Your task to perform on an android device: find snoozed emails in the gmail app Image 0: 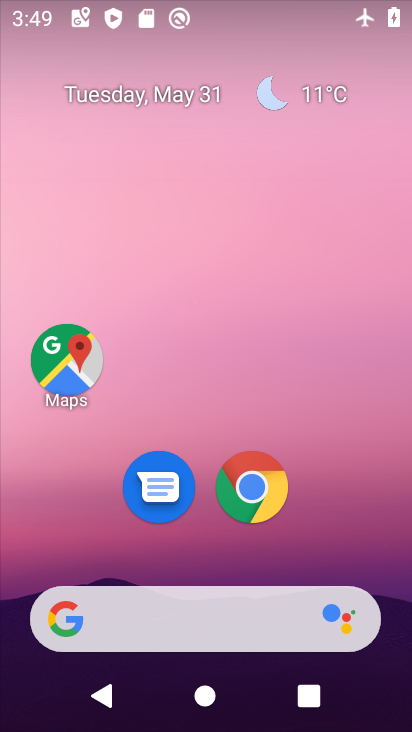
Step 0: drag from (361, 517) to (259, 187)
Your task to perform on an android device: find snoozed emails in the gmail app Image 1: 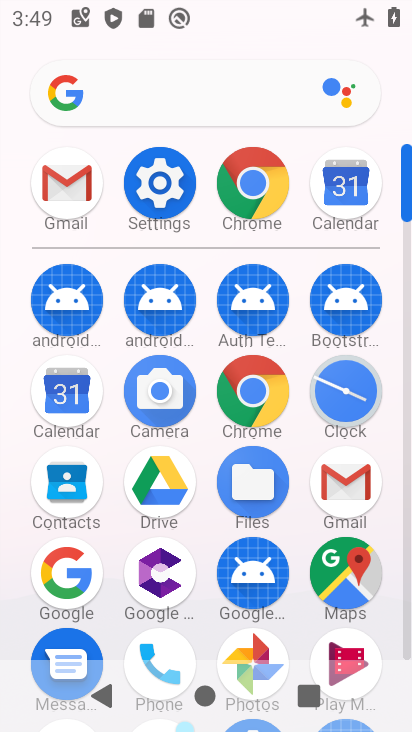
Step 1: click (66, 185)
Your task to perform on an android device: find snoozed emails in the gmail app Image 2: 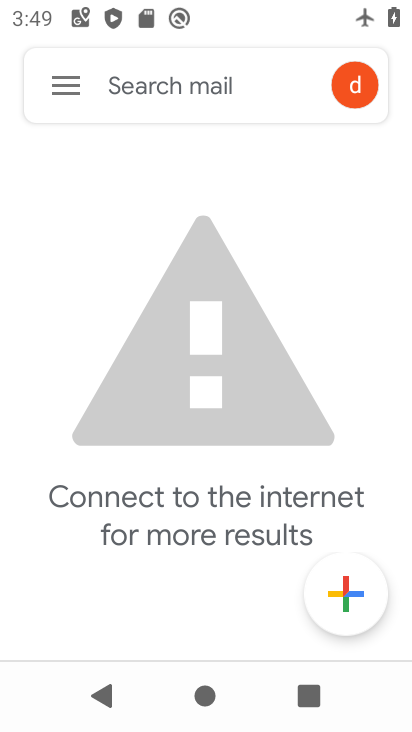
Step 2: click (72, 90)
Your task to perform on an android device: find snoozed emails in the gmail app Image 3: 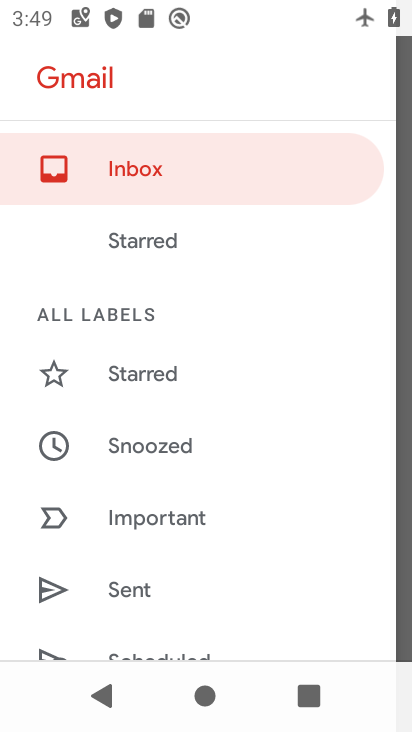
Step 3: click (174, 456)
Your task to perform on an android device: find snoozed emails in the gmail app Image 4: 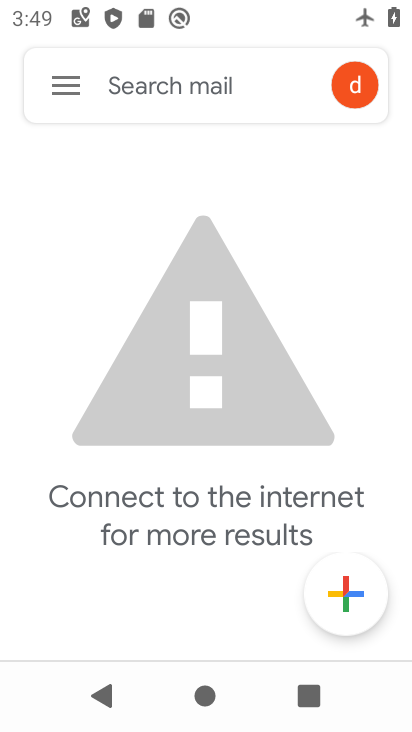
Step 4: click (71, 94)
Your task to perform on an android device: find snoozed emails in the gmail app Image 5: 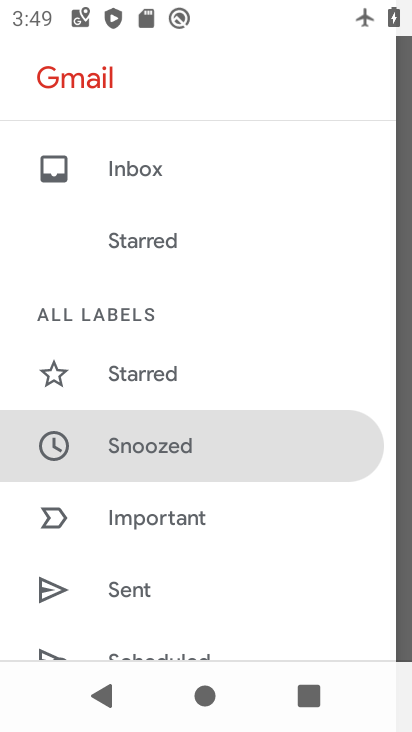
Step 5: task complete